Your task to perform on an android device: Open Amazon Image 0: 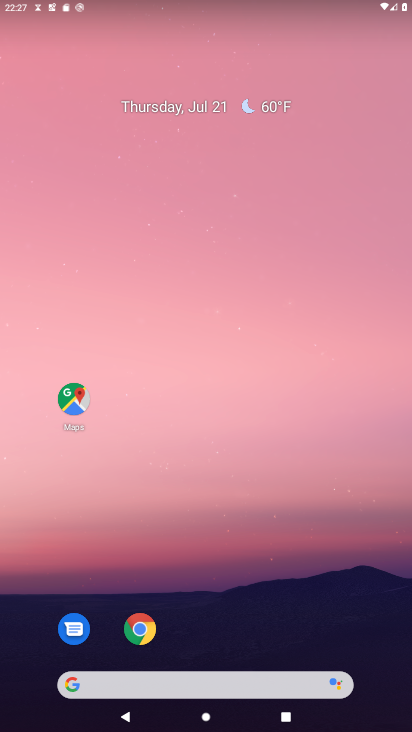
Step 0: click (151, 632)
Your task to perform on an android device: Open Amazon Image 1: 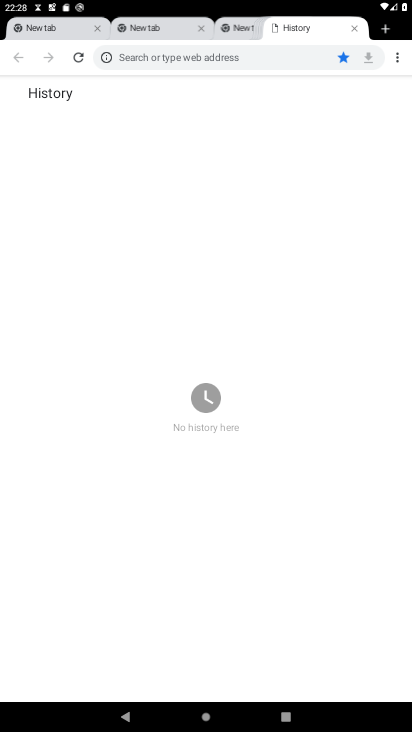
Step 1: click (385, 24)
Your task to perform on an android device: Open Amazon Image 2: 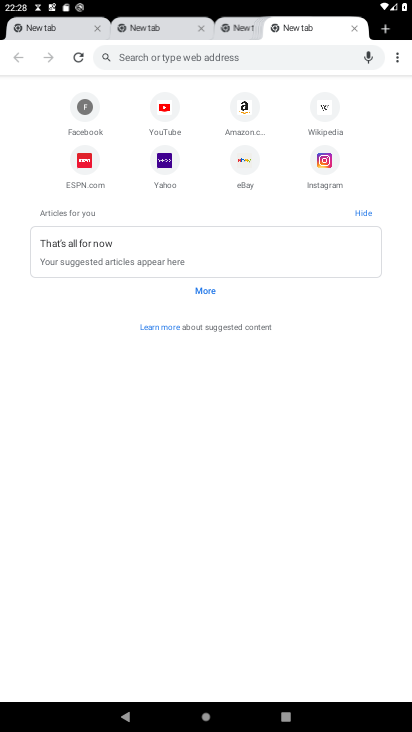
Step 2: click (251, 108)
Your task to perform on an android device: Open Amazon Image 3: 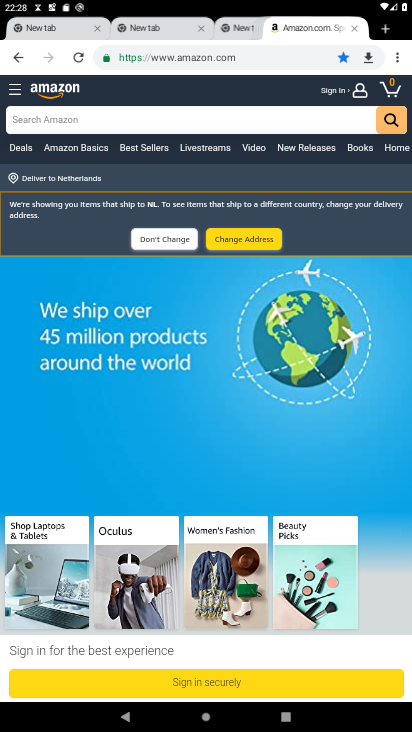
Step 3: task complete